Your task to perform on an android device: Open settings on Google Maps Image 0: 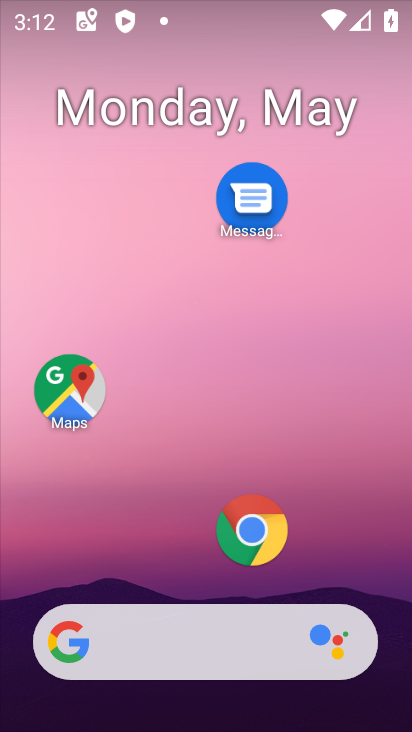
Step 0: click (71, 402)
Your task to perform on an android device: Open settings on Google Maps Image 1: 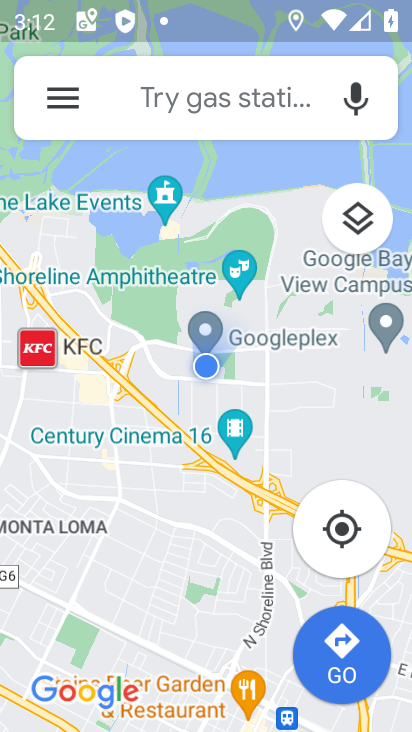
Step 1: click (64, 91)
Your task to perform on an android device: Open settings on Google Maps Image 2: 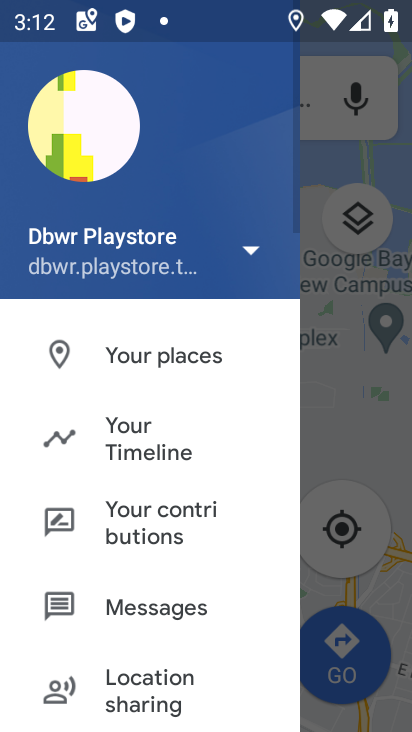
Step 2: drag from (196, 374) to (218, 239)
Your task to perform on an android device: Open settings on Google Maps Image 3: 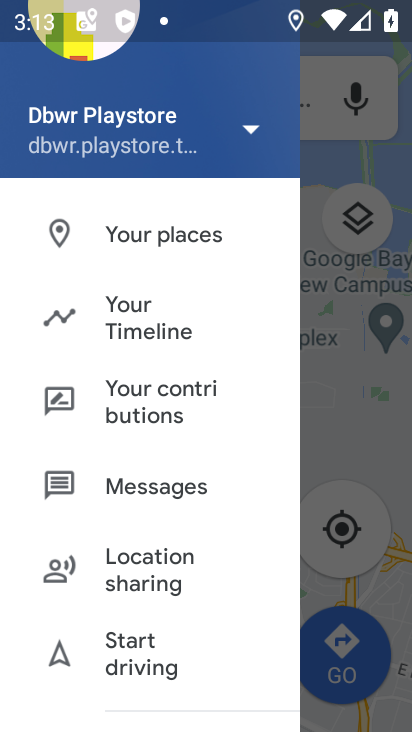
Step 3: drag from (147, 661) to (310, 75)
Your task to perform on an android device: Open settings on Google Maps Image 4: 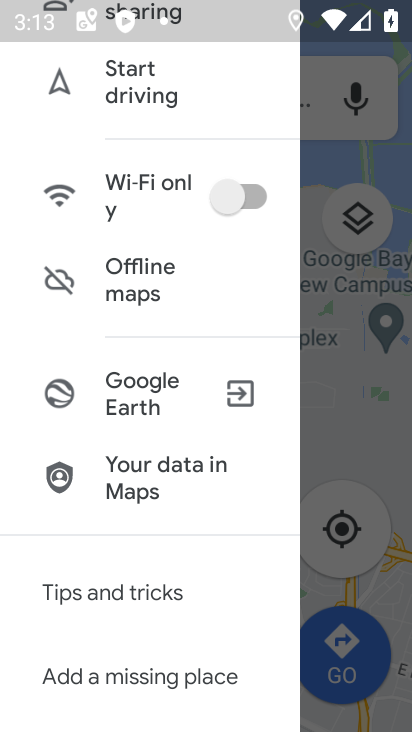
Step 4: drag from (145, 643) to (279, 87)
Your task to perform on an android device: Open settings on Google Maps Image 5: 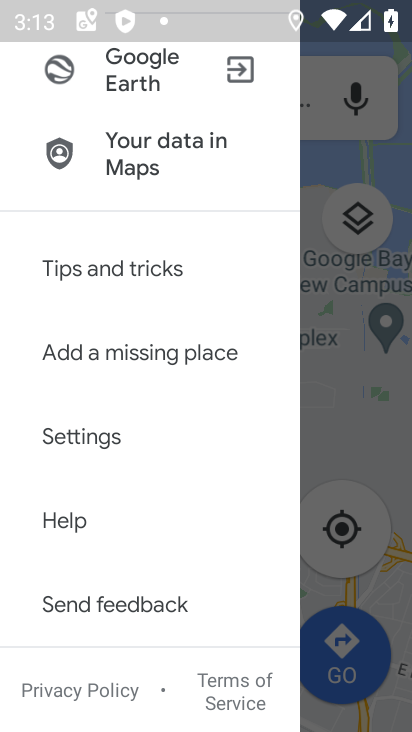
Step 5: click (101, 444)
Your task to perform on an android device: Open settings on Google Maps Image 6: 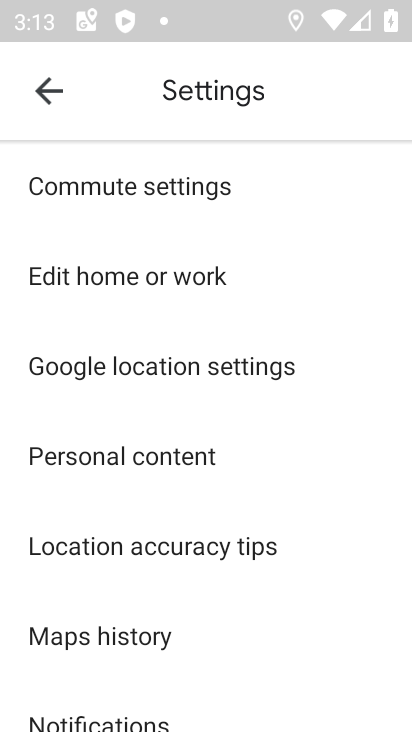
Step 6: task complete